Your task to perform on an android device: What time is it in Tokyo? Image 0: 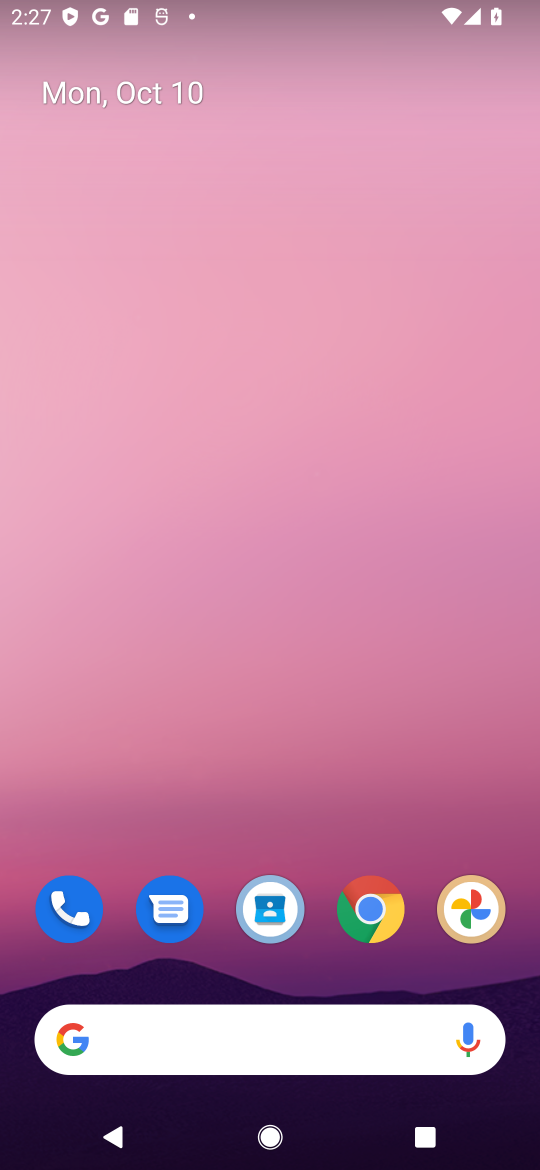
Step 0: click (378, 912)
Your task to perform on an android device: What time is it in Tokyo? Image 1: 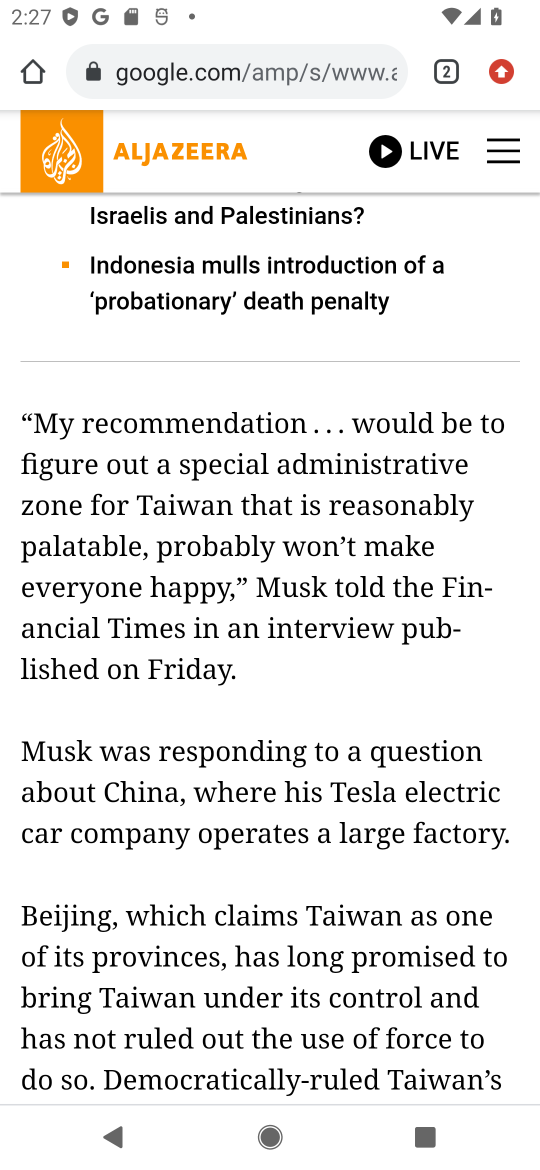
Step 1: click (257, 53)
Your task to perform on an android device: What time is it in Tokyo? Image 2: 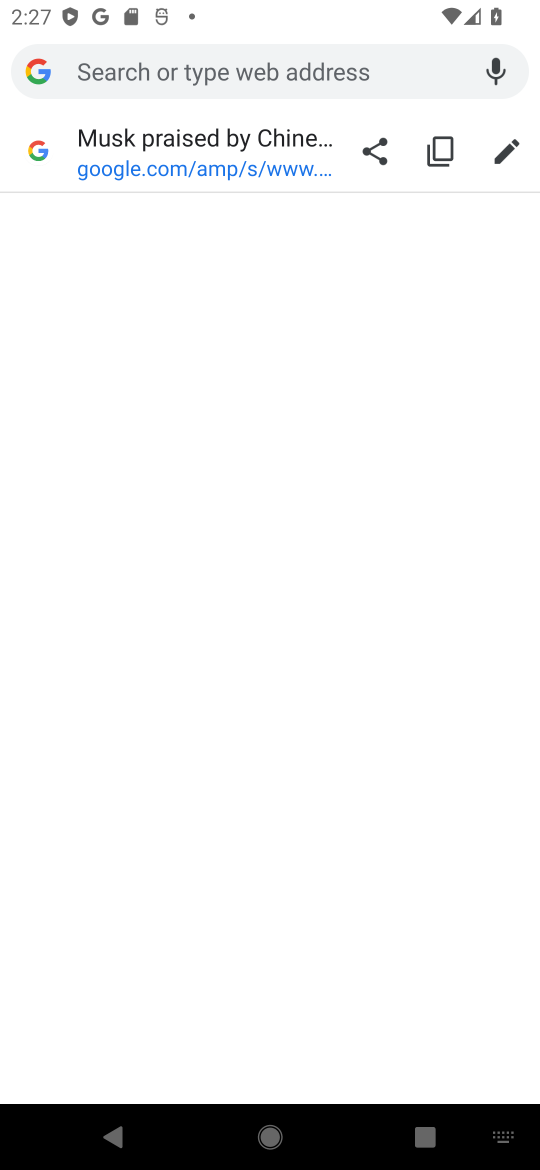
Step 2: type "What time is it in Tokyo?"
Your task to perform on an android device: What time is it in Tokyo? Image 3: 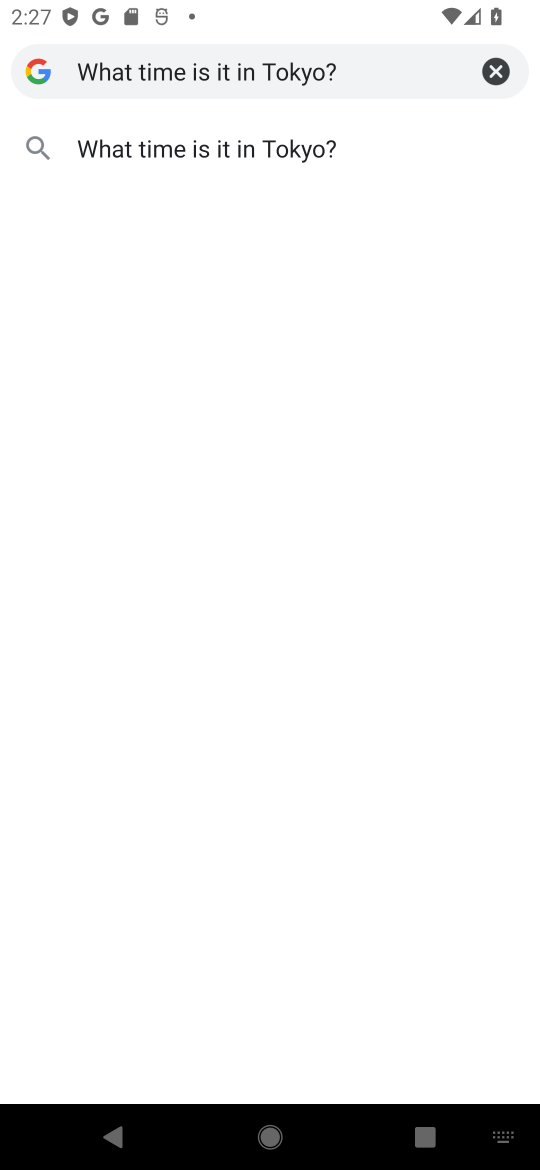
Step 3: click (156, 150)
Your task to perform on an android device: What time is it in Tokyo? Image 4: 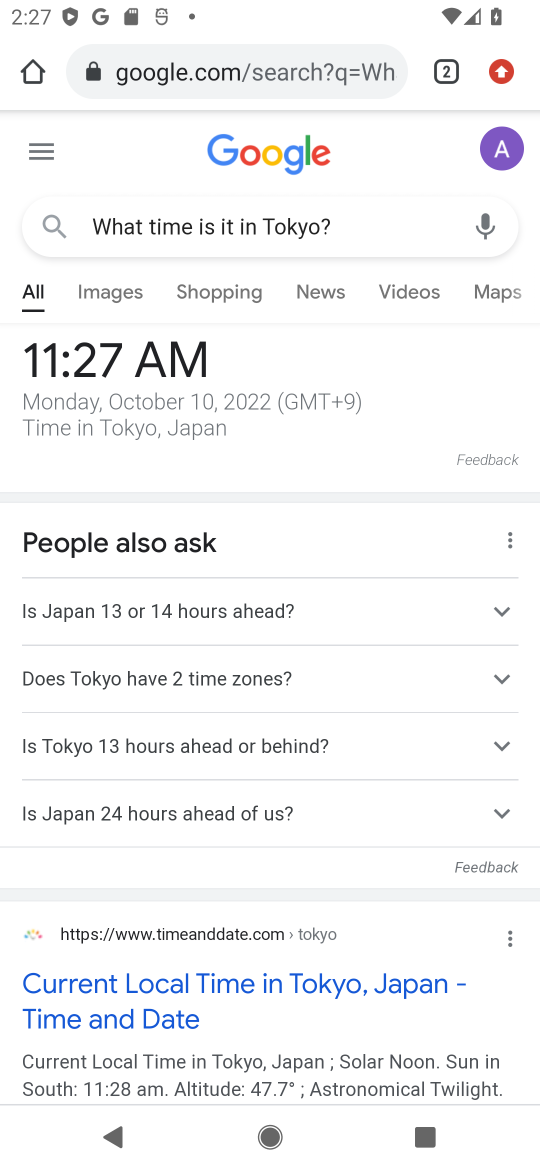
Step 4: click (157, 370)
Your task to perform on an android device: What time is it in Tokyo? Image 5: 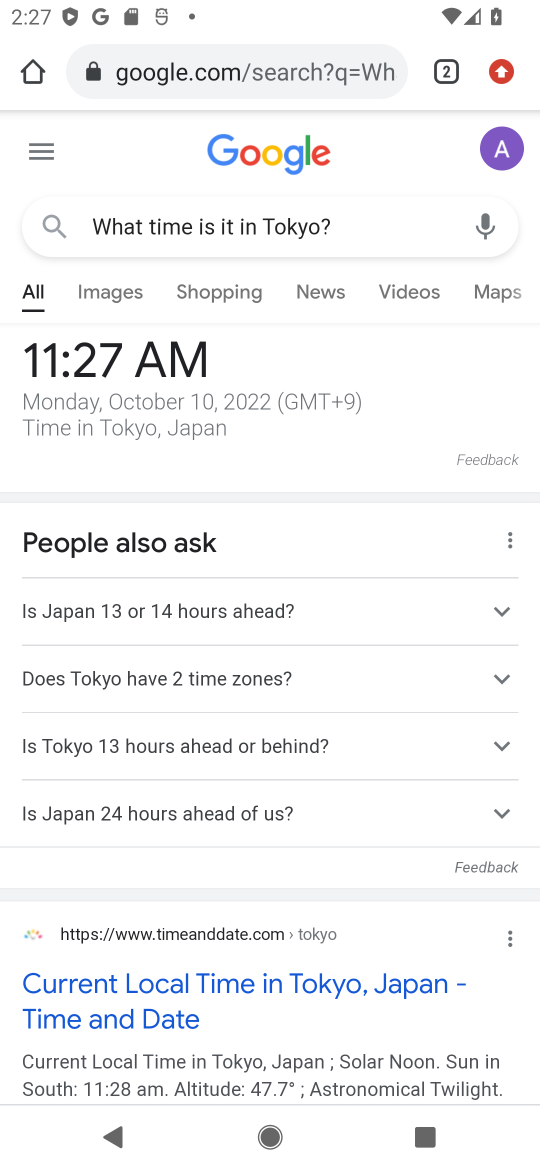
Step 5: task complete